Your task to perform on an android device: Open Amazon Image 0: 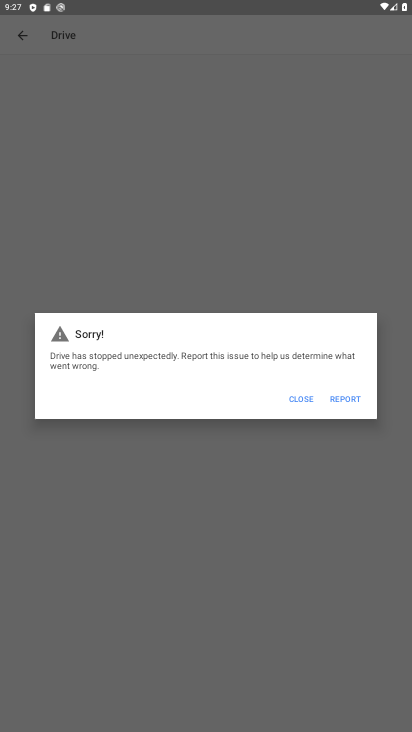
Step 0: drag from (214, 394) to (245, 158)
Your task to perform on an android device: Open Amazon Image 1: 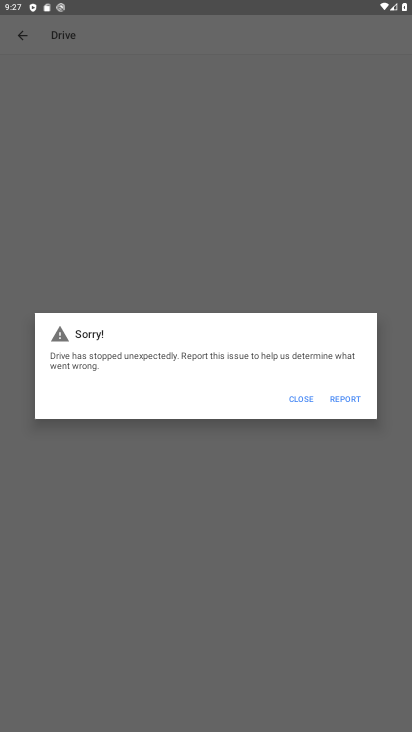
Step 1: press home button
Your task to perform on an android device: Open Amazon Image 2: 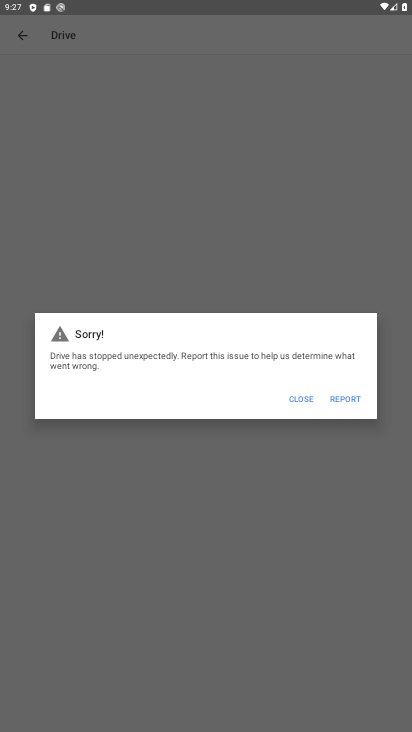
Step 2: press home button
Your task to perform on an android device: Open Amazon Image 3: 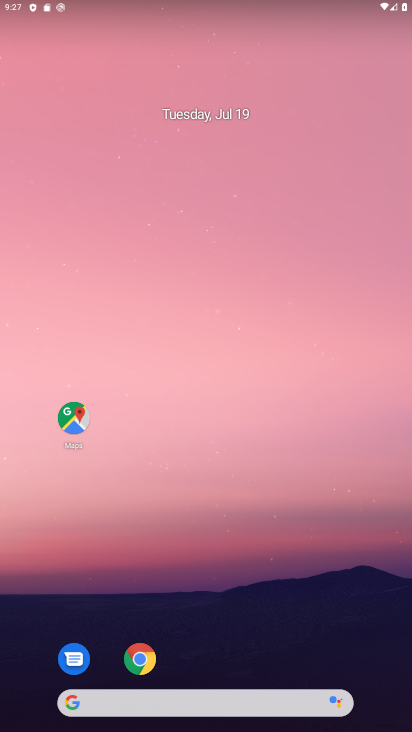
Step 3: drag from (253, 449) to (324, 203)
Your task to perform on an android device: Open Amazon Image 4: 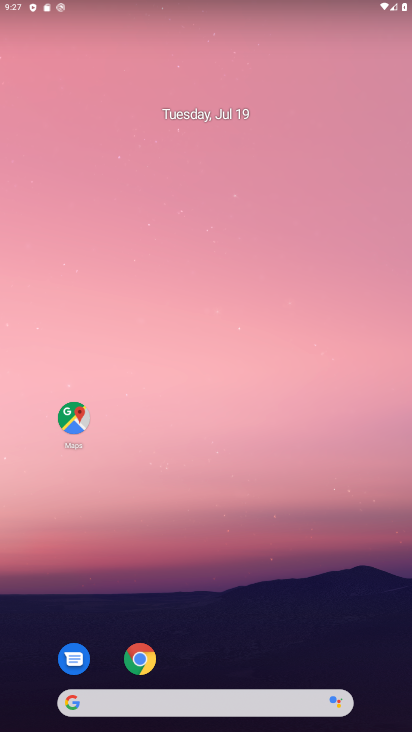
Step 4: drag from (202, 640) to (315, 190)
Your task to perform on an android device: Open Amazon Image 5: 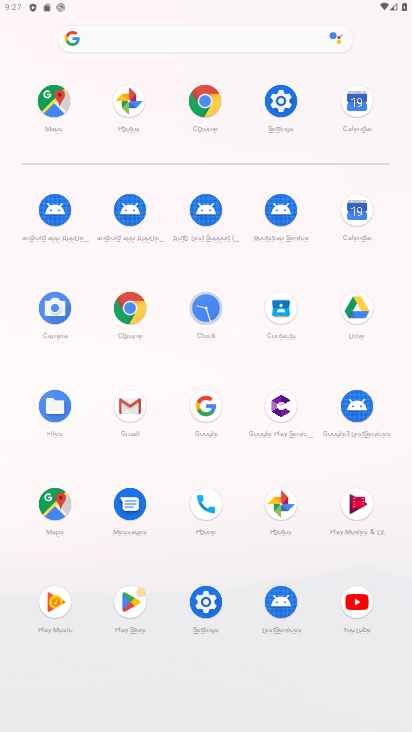
Step 5: click (202, 100)
Your task to perform on an android device: Open Amazon Image 6: 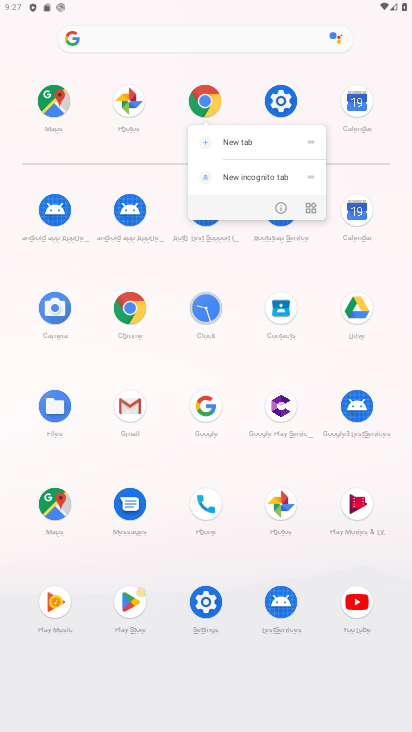
Step 6: click (276, 202)
Your task to perform on an android device: Open Amazon Image 7: 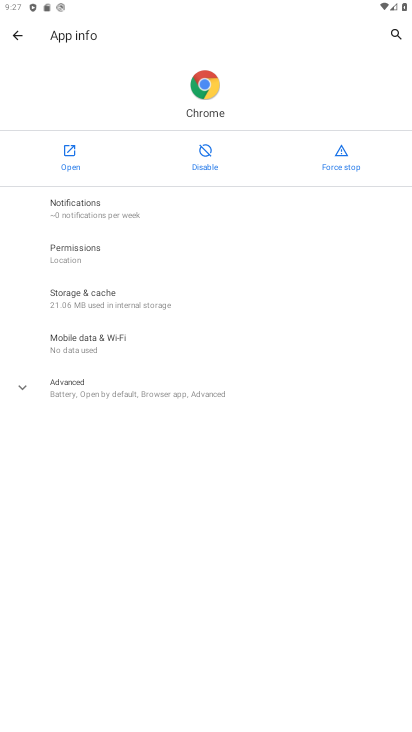
Step 7: click (62, 160)
Your task to perform on an android device: Open Amazon Image 8: 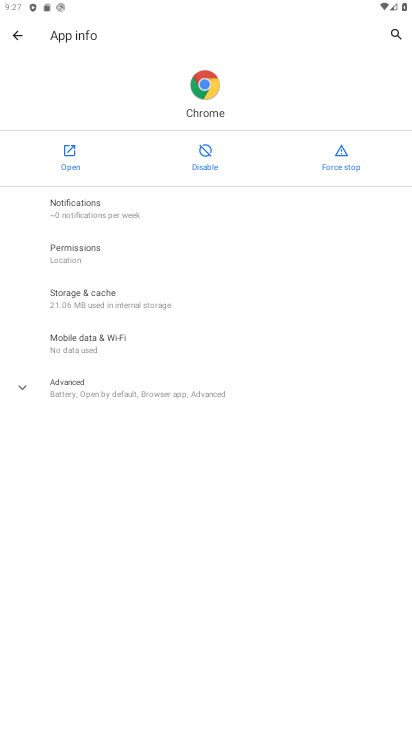
Step 8: click (61, 161)
Your task to perform on an android device: Open Amazon Image 9: 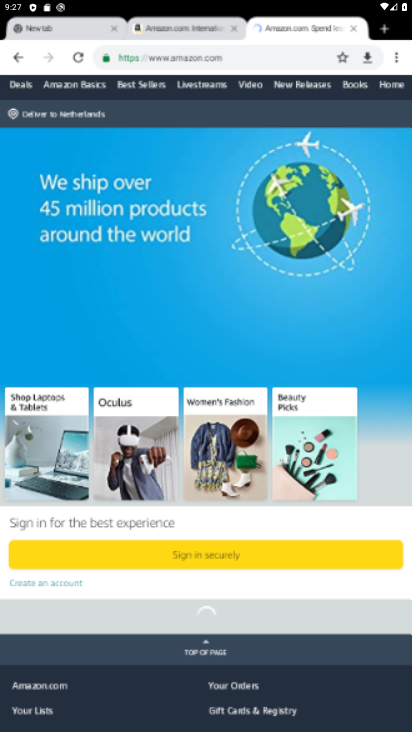
Step 9: task complete